Your task to perform on an android device: Go to accessibility settings Image 0: 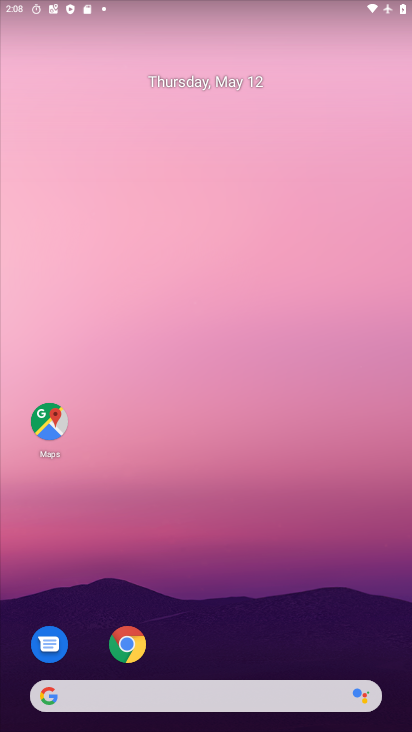
Step 0: drag from (271, 563) to (218, 74)
Your task to perform on an android device: Go to accessibility settings Image 1: 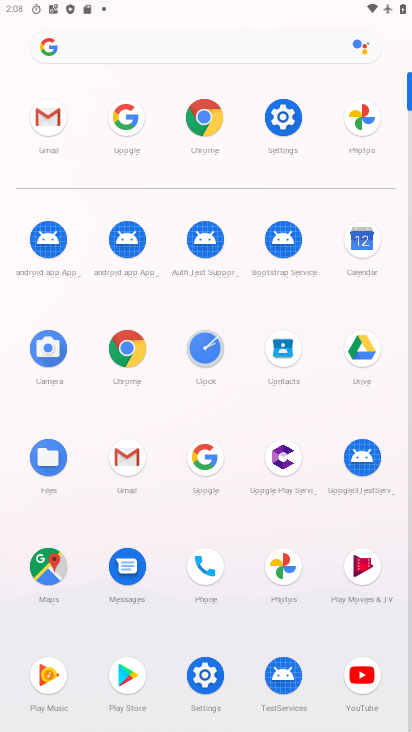
Step 1: click (279, 109)
Your task to perform on an android device: Go to accessibility settings Image 2: 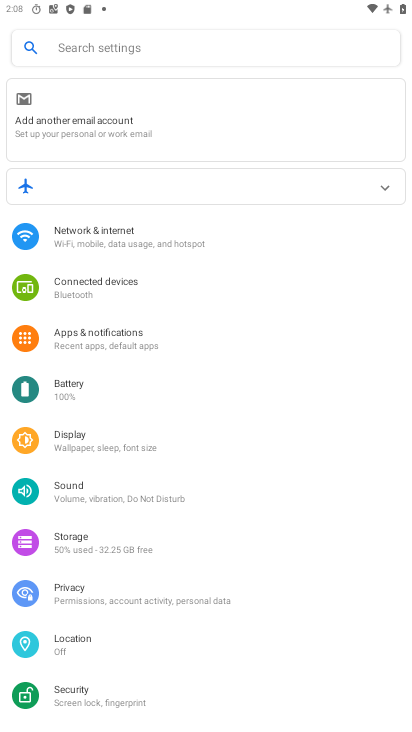
Step 2: drag from (193, 684) to (177, 428)
Your task to perform on an android device: Go to accessibility settings Image 3: 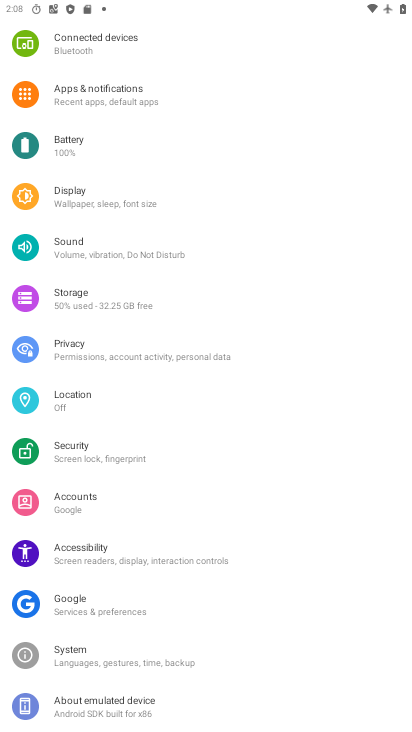
Step 3: click (171, 548)
Your task to perform on an android device: Go to accessibility settings Image 4: 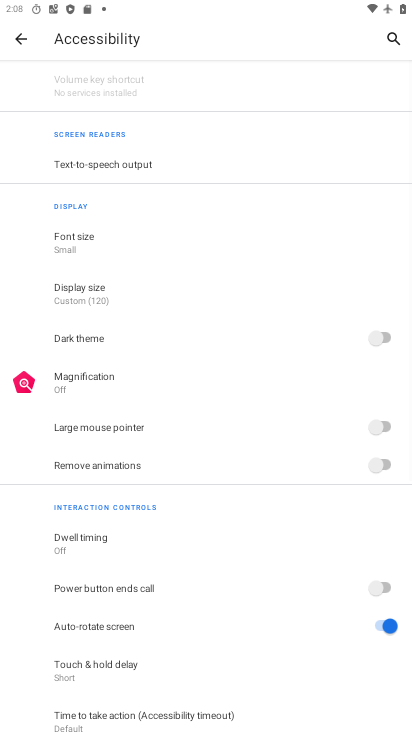
Step 4: task complete